Your task to perform on an android device: toggle translation in the chrome app Image 0: 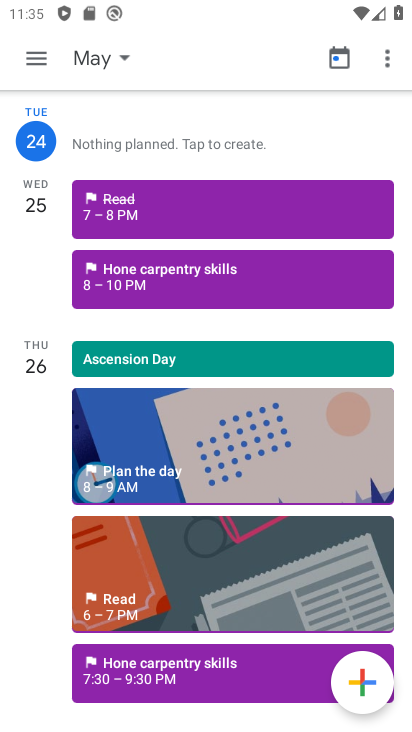
Step 0: press home button
Your task to perform on an android device: toggle translation in the chrome app Image 1: 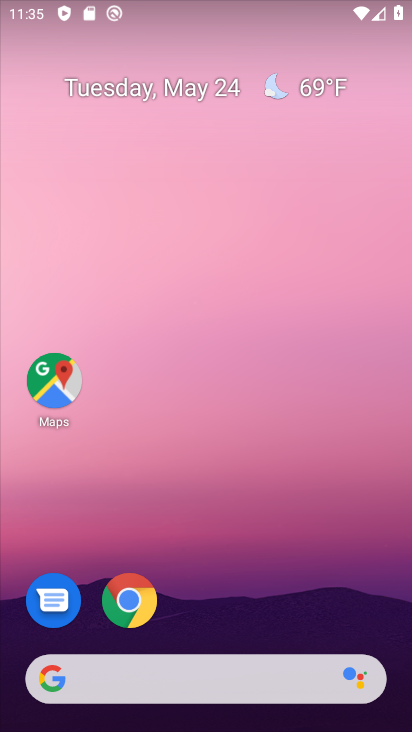
Step 1: drag from (378, 625) to (369, 127)
Your task to perform on an android device: toggle translation in the chrome app Image 2: 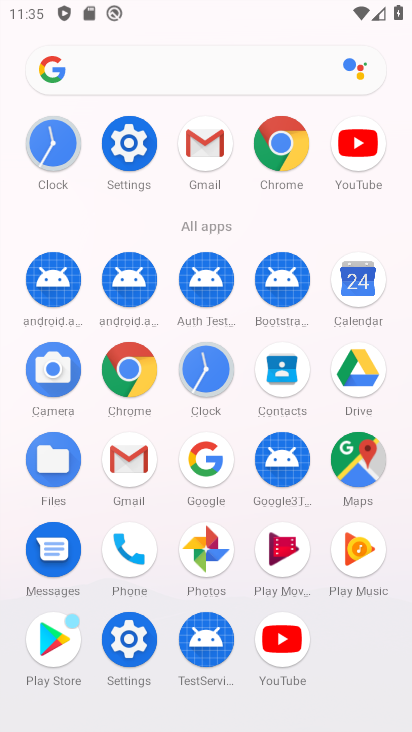
Step 2: click (125, 378)
Your task to perform on an android device: toggle translation in the chrome app Image 3: 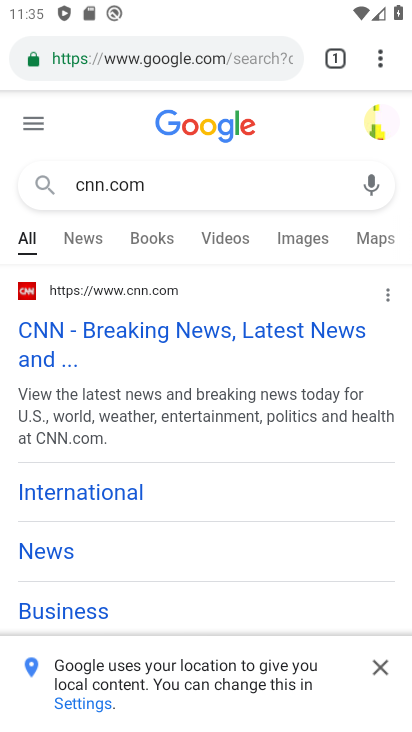
Step 3: click (384, 63)
Your task to perform on an android device: toggle translation in the chrome app Image 4: 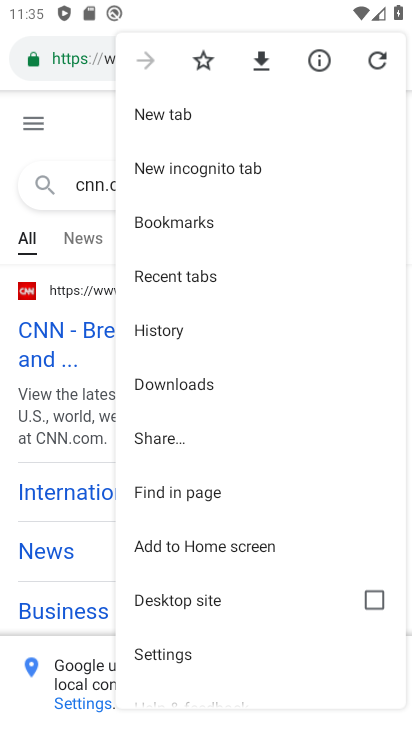
Step 4: drag from (312, 437) to (317, 379)
Your task to perform on an android device: toggle translation in the chrome app Image 5: 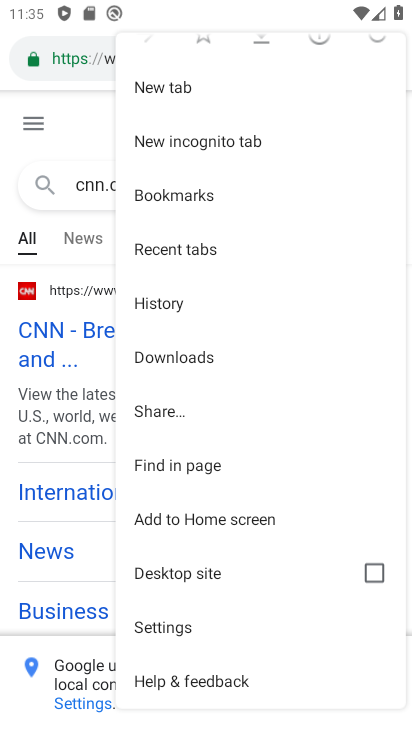
Step 5: drag from (297, 566) to (313, 371)
Your task to perform on an android device: toggle translation in the chrome app Image 6: 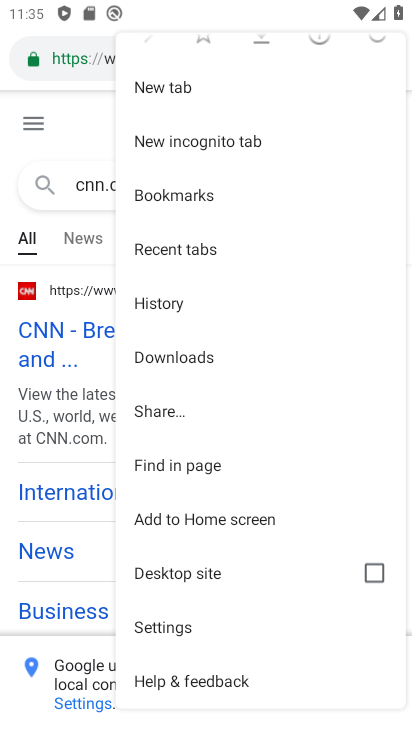
Step 6: drag from (300, 282) to (284, 442)
Your task to perform on an android device: toggle translation in the chrome app Image 7: 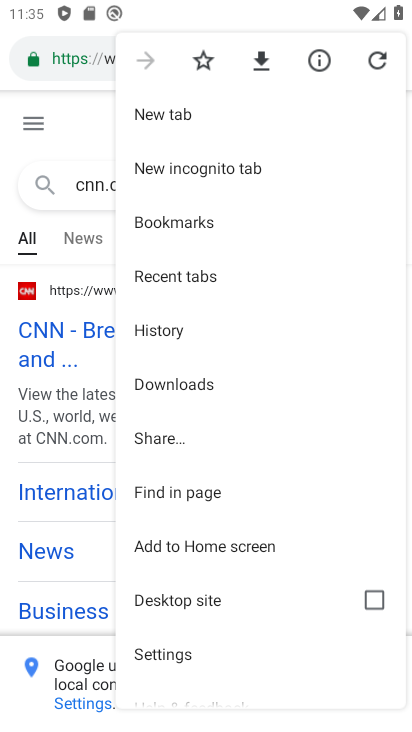
Step 7: drag from (307, 544) to (314, 382)
Your task to perform on an android device: toggle translation in the chrome app Image 8: 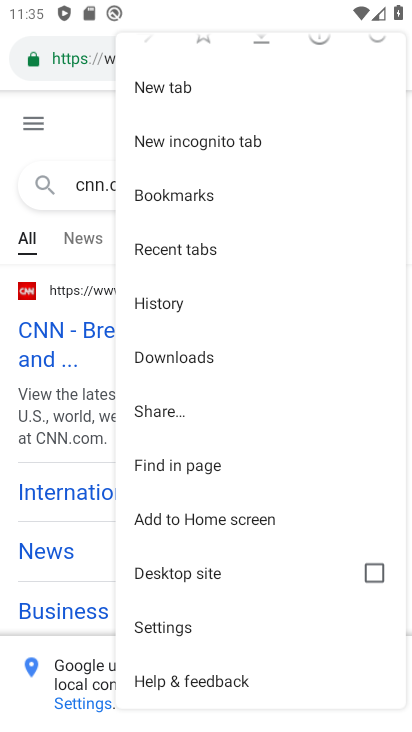
Step 8: click (179, 638)
Your task to perform on an android device: toggle translation in the chrome app Image 9: 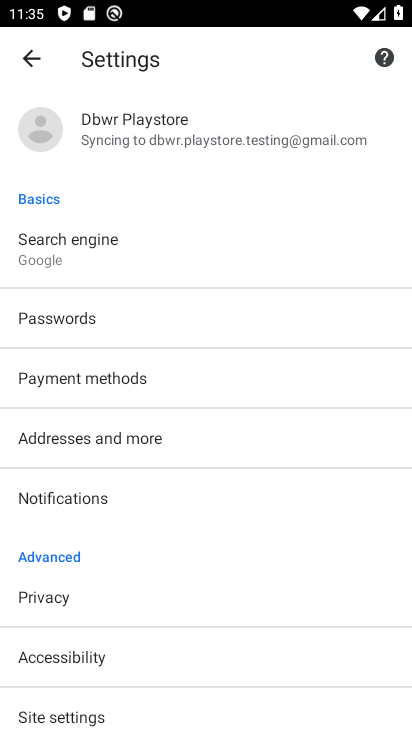
Step 9: drag from (289, 578) to (305, 485)
Your task to perform on an android device: toggle translation in the chrome app Image 10: 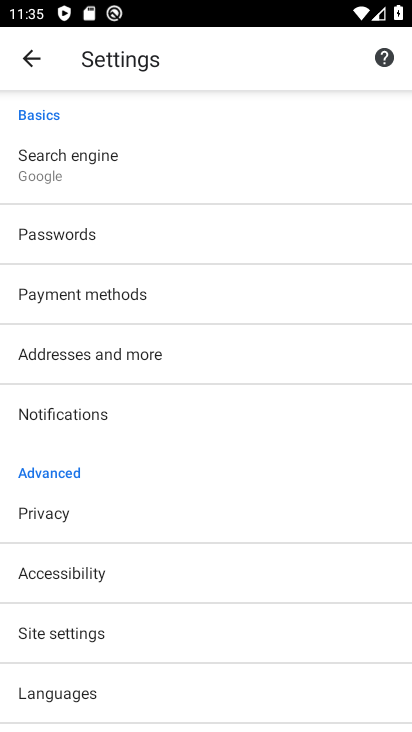
Step 10: drag from (311, 627) to (320, 486)
Your task to perform on an android device: toggle translation in the chrome app Image 11: 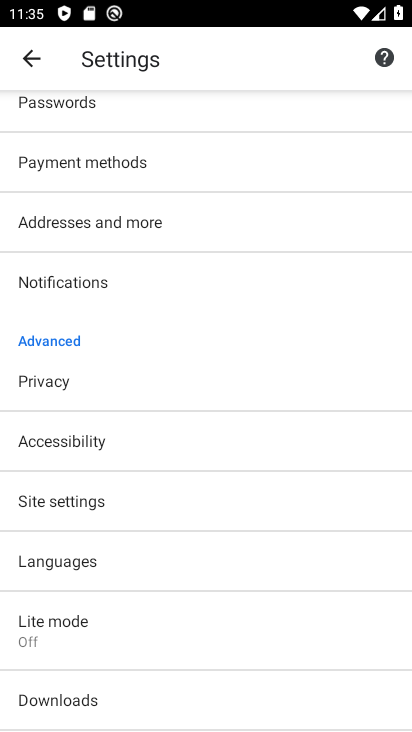
Step 11: drag from (290, 618) to (261, 432)
Your task to perform on an android device: toggle translation in the chrome app Image 12: 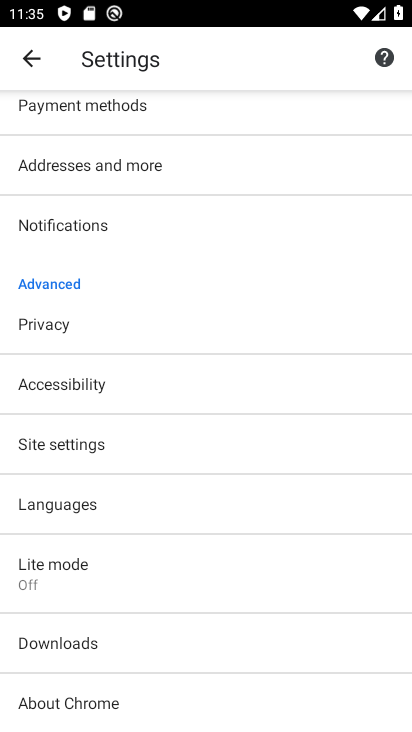
Step 12: drag from (283, 339) to (270, 434)
Your task to perform on an android device: toggle translation in the chrome app Image 13: 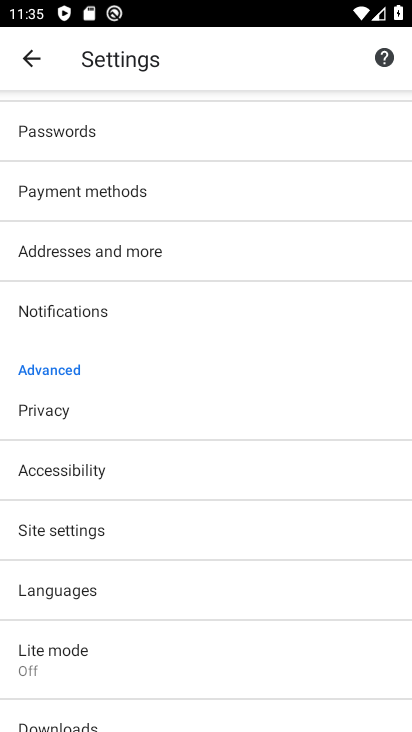
Step 13: drag from (281, 298) to (279, 406)
Your task to perform on an android device: toggle translation in the chrome app Image 14: 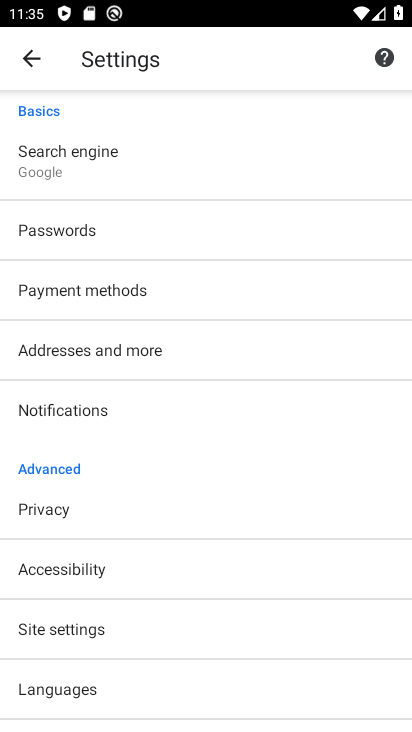
Step 14: drag from (276, 265) to (282, 422)
Your task to perform on an android device: toggle translation in the chrome app Image 15: 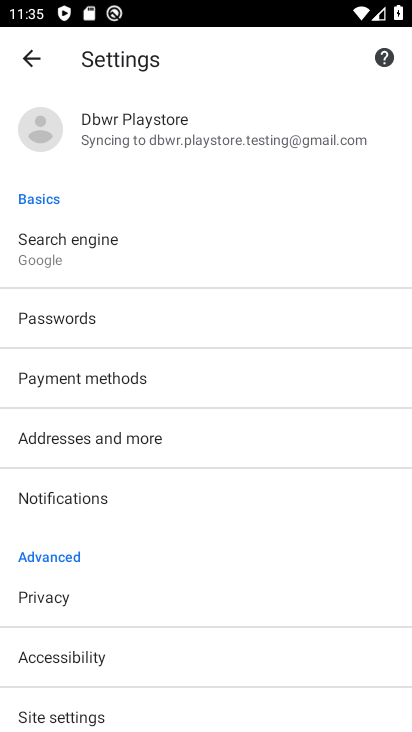
Step 15: drag from (295, 518) to (308, 396)
Your task to perform on an android device: toggle translation in the chrome app Image 16: 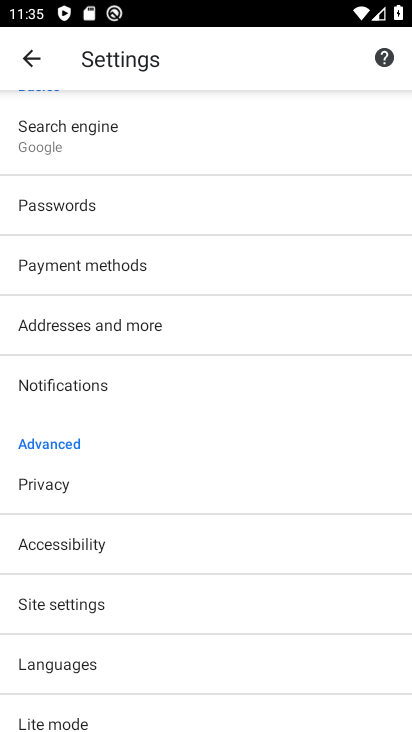
Step 16: drag from (321, 578) to (316, 461)
Your task to perform on an android device: toggle translation in the chrome app Image 17: 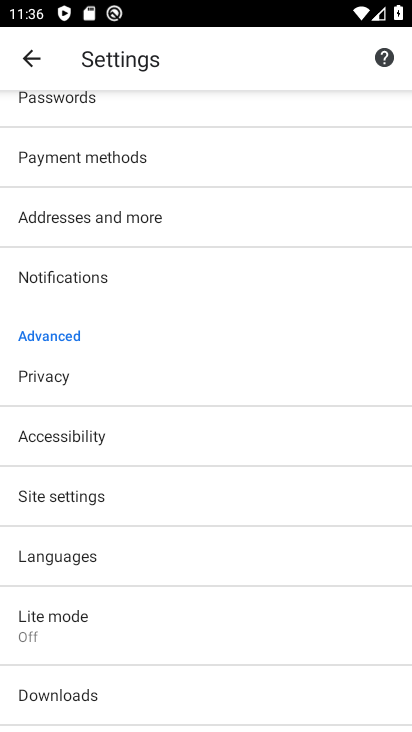
Step 17: drag from (305, 625) to (326, 501)
Your task to perform on an android device: toggle translation in the chrome app Image 18: 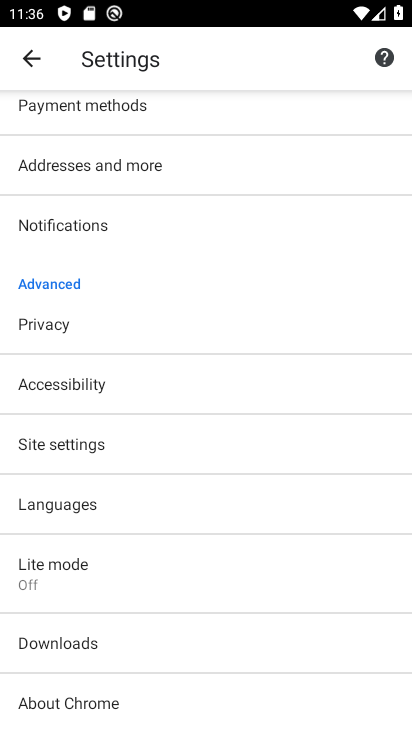
Step 18: click (219, 494)
Your task to perform on an android device: toggle translation in the chrome app Image 19: 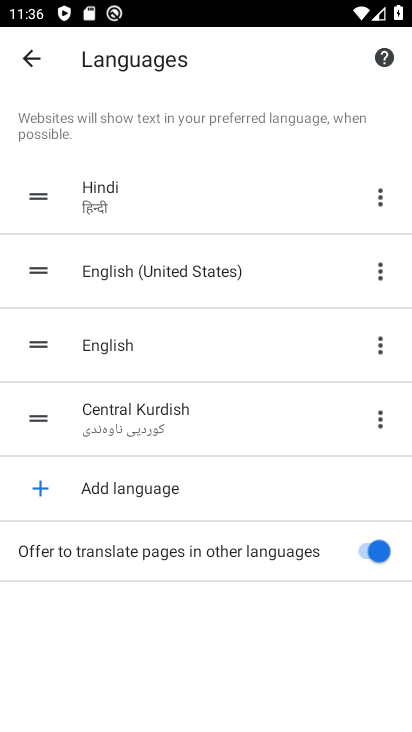
Step 19: click (382, 552)
Your task to perform on an android device: toggle translation in the chrome app Image 20: 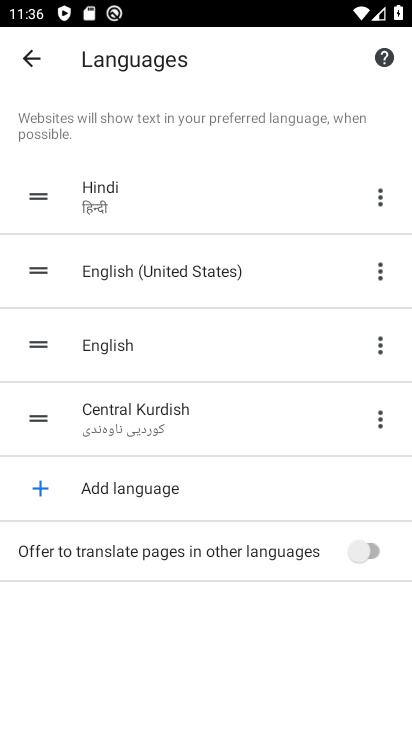
Step 20: task complete